Your task to perform on an android device: change notifications settings Image 0: 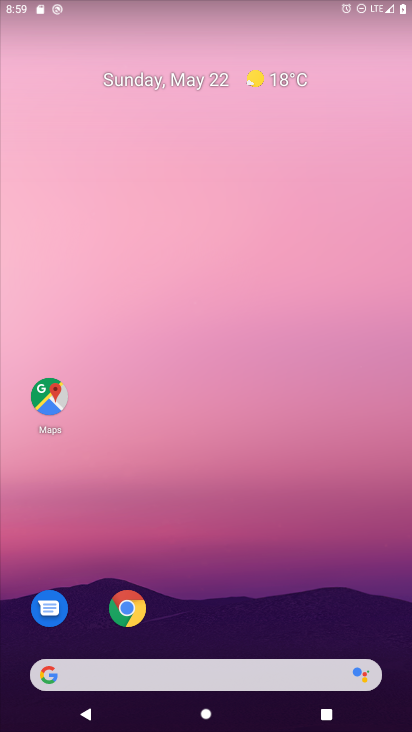
Step 0: drag from (223, 718) to (211, 117)
Your task to perform on an android device: change notifications settings Image 1: 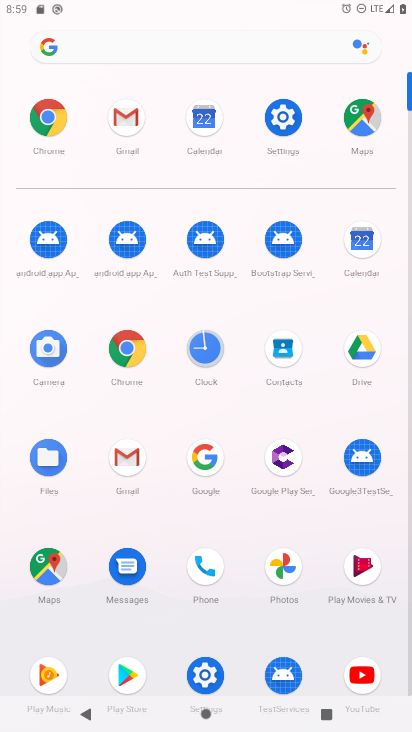
Step 1: click (278, 119)
Your task to perform on an android device: change notifications settings Image 2: 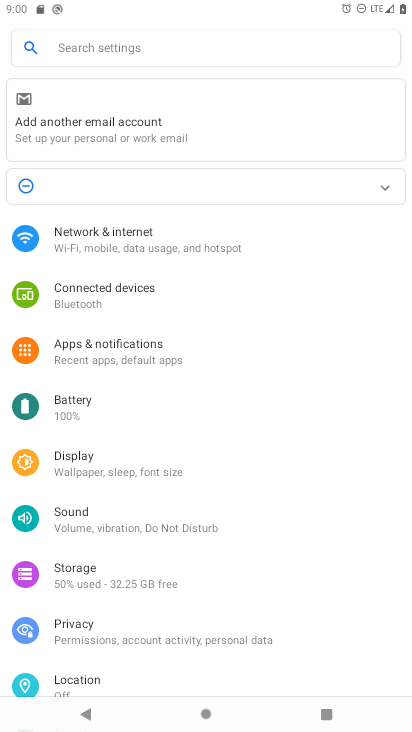
Step 2: click (113, 353)
Your task to perform on an android device: change notifications settings Image 3: 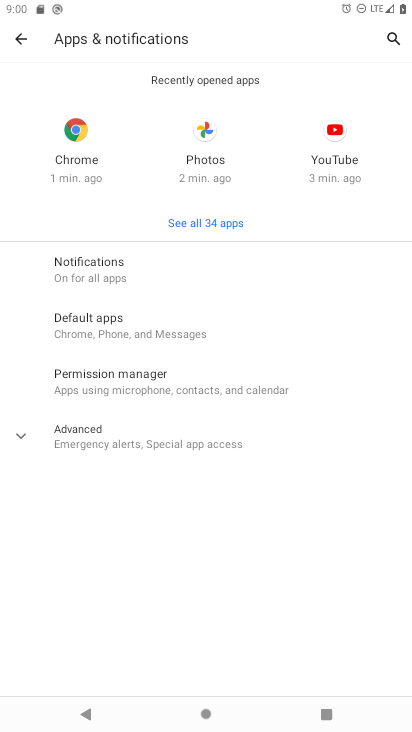
Step 3: click (99, 269)
Your task to perform on an android device: change notifications settings Image 4: 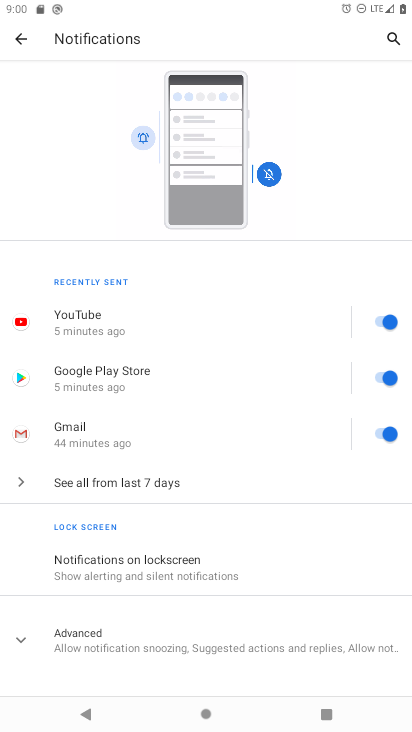
Step 4: click (109, 643)
Your task to perform on an android device: change notifications settings Image 5: 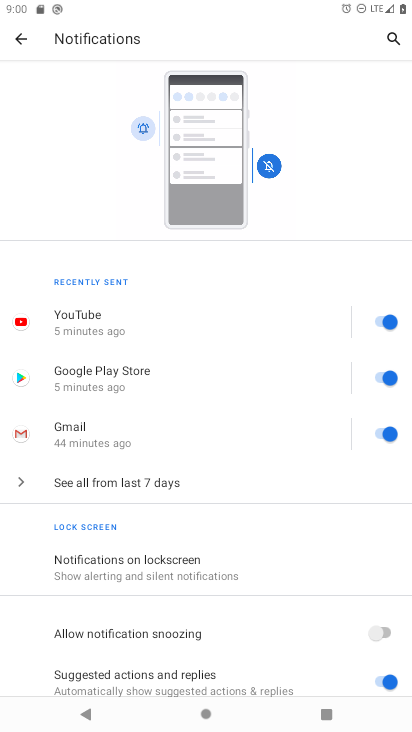
Step 5: click (386, 628)
Your task to perform on an android device: change notifications settings Image 6: 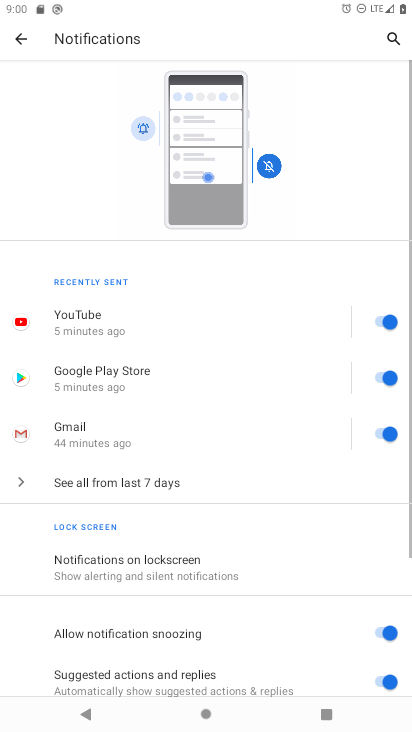
Step 6: task complete